Your task to perform on an android device: Open calendar and show me the fourth week of next month Image 0: 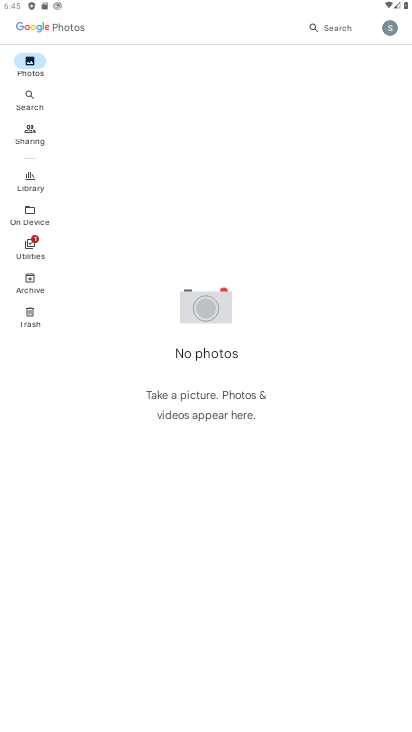
Step 0: press home button
Your task to perform on an android device: Open calendar and show me the fourth week of next month Image 1: 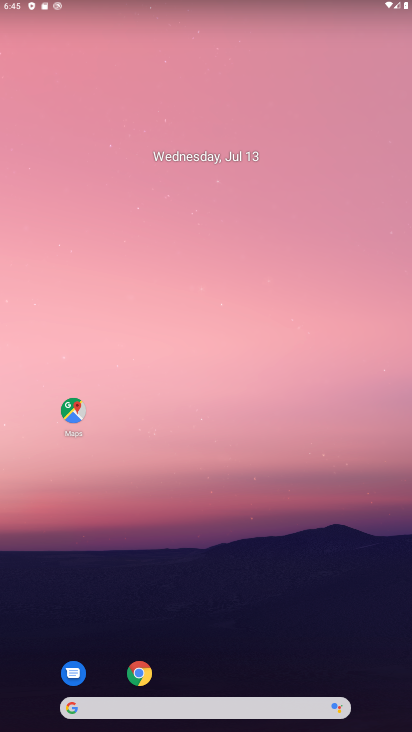
Step 1: drag from (299, 639) to (408, 121)
Your task to perform on an android device: Open calendar and show me the fourth week of next month Image 2: 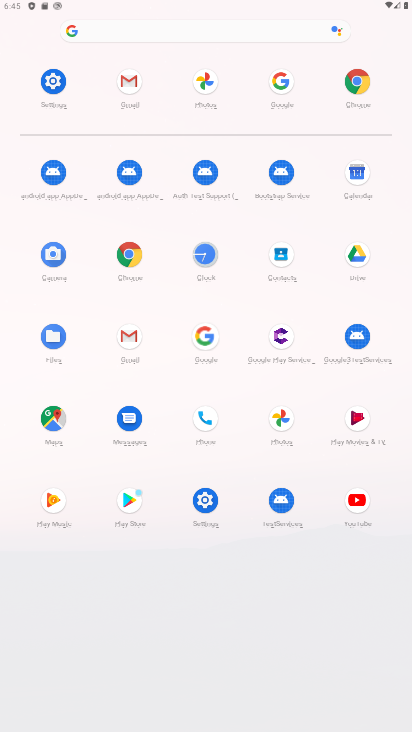
Step 2: click (352, 170)
Your task to perform on an android device: Open calendar and show me the fourth week of next month Image 3: 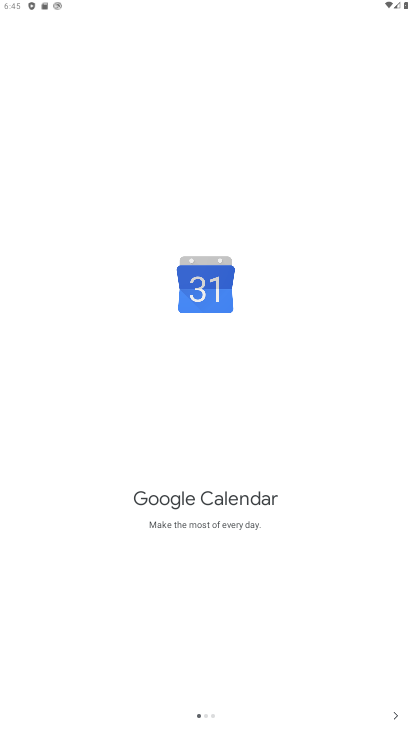
Step 3: click (403, 711)
Your task to perform on an android device: Open calendar and show me the fourth week of next month Image 4: 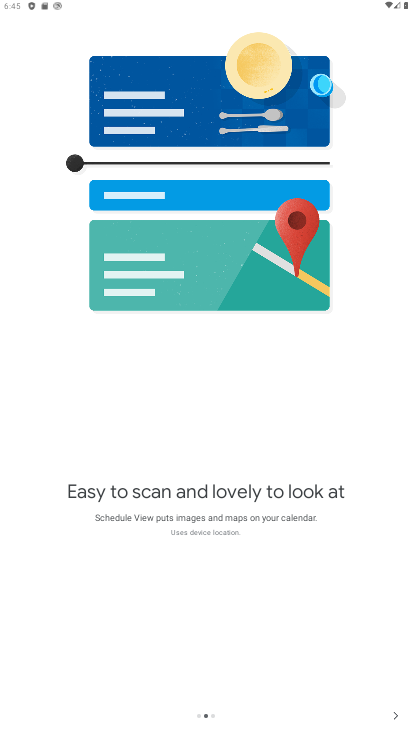
Step 4: click (387, 722)
Your task to perform on an android device: Open calendar and show me the fourth week of next month Image 5: 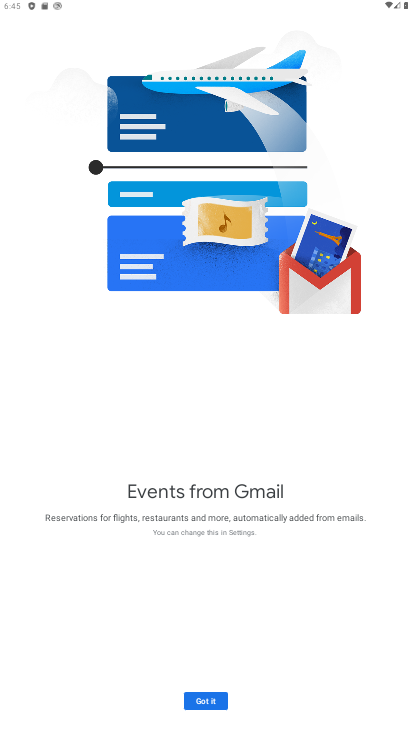
Step 5: click (208, 703)
Your task to perform on an android device: Open calendar and show me the fourth week of next month Image 6: 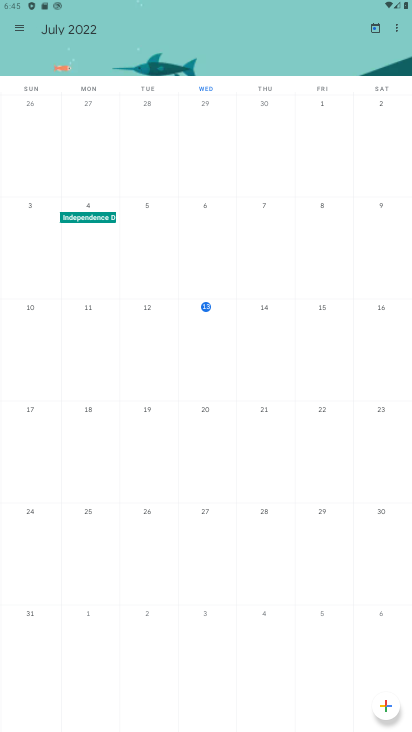
Step 6: drag from (373, 442) to (45, 526)
Your task to perform on an android device: Open calendar and show me the fourth week of next month Image 7: 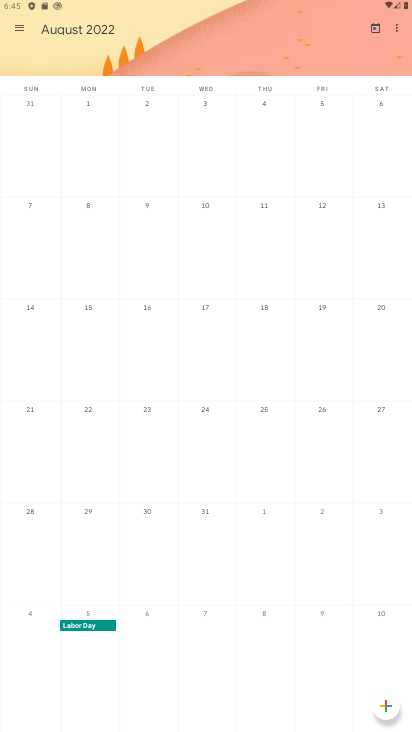
Step 7: click (34, 515)
Your task to perform on an android device: Open calendar and show me the fourth week of next month Image 8: 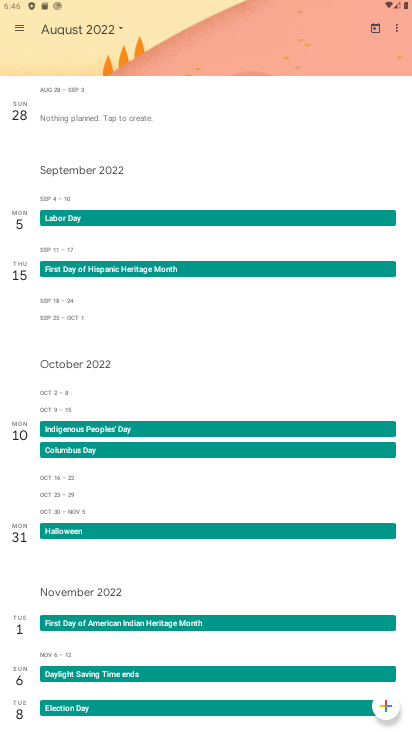
Step 8: task complete